Your task to perform on an android device: Open the Play Movies app and select the watchlist tab. Image 0: 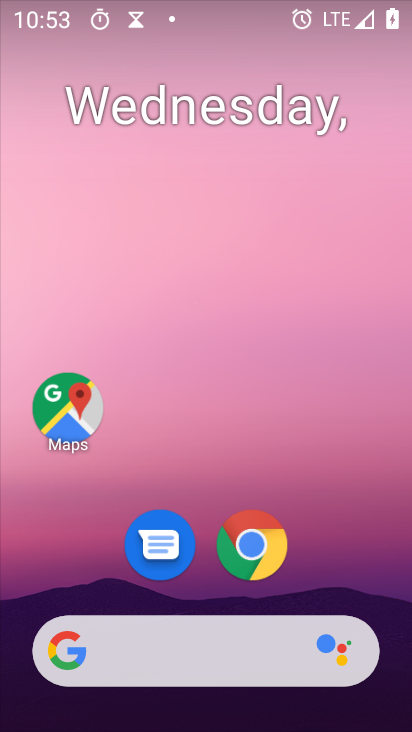
Step 0: press home button
Your task to perform on an android device: Open the Play Movies app and select the watchlist tab. Image 1: 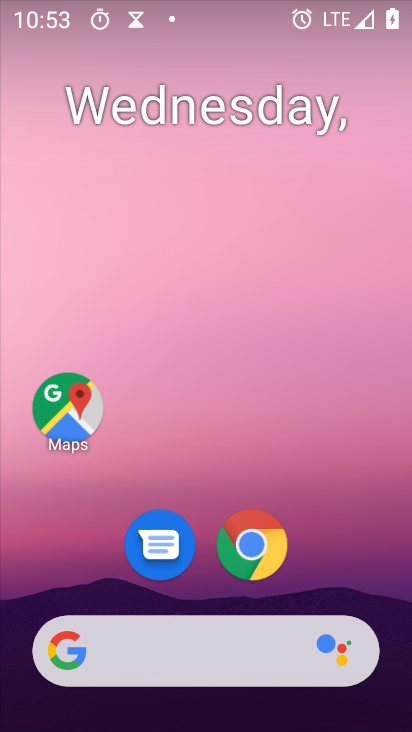
Step 1: drag from (148, 652) to (305, 156)
Your task to perform on an android device: Open the Play Movies app and select the watchlist tab. Image 2: 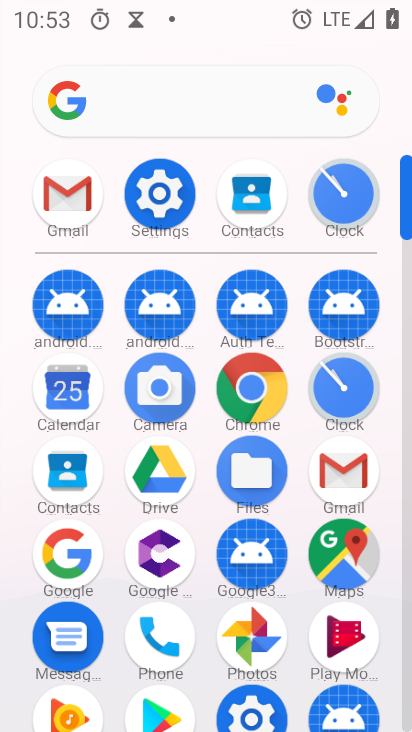
Step 2: click (337, 640)
Your task to perform on an android device: Open the Play Movies app and select the watchlist tab. Image 3: 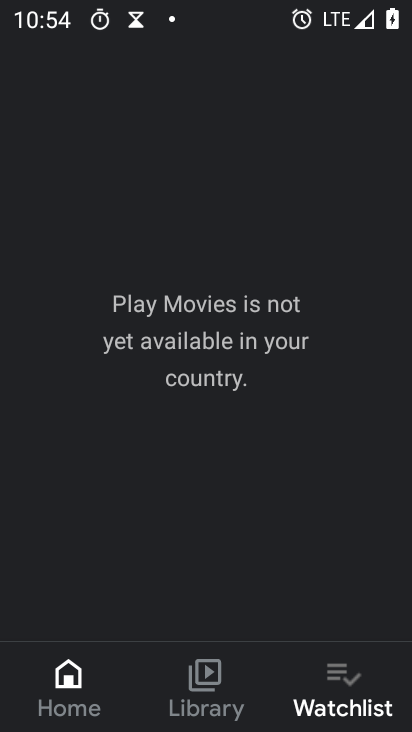
Step 3: task complete